Your task to perform on an android device: install app "TextNow: Call + Text Unlimited" Image 0: 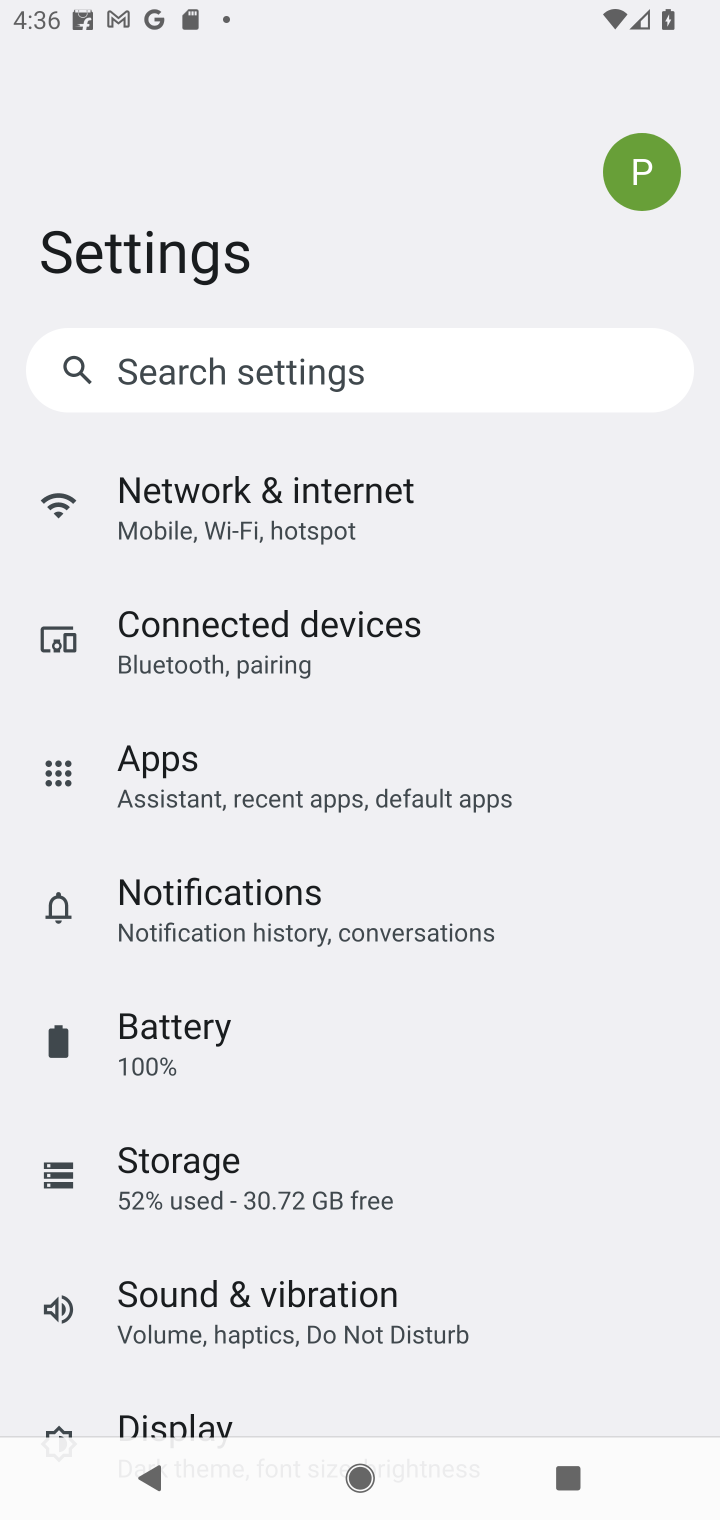
Step 0: press home button
Your task to perform on an android device: install app "TextNow: Call + Text Unlimited" Image 1: 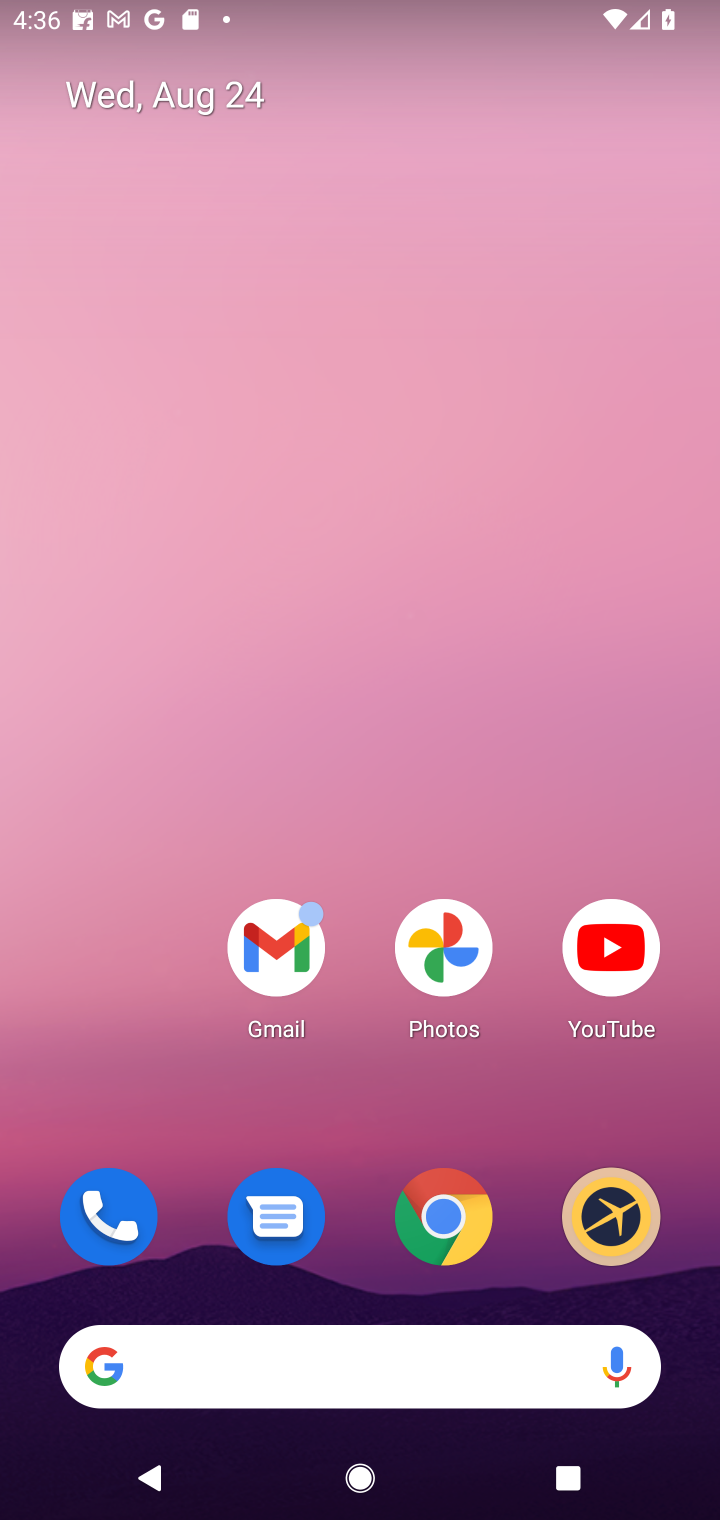
Step 1: drag from (349, 1111) to (349, 271)
Your task to perform on an android device: install app "TextNow: Call + Text Unlimited" Image 2: 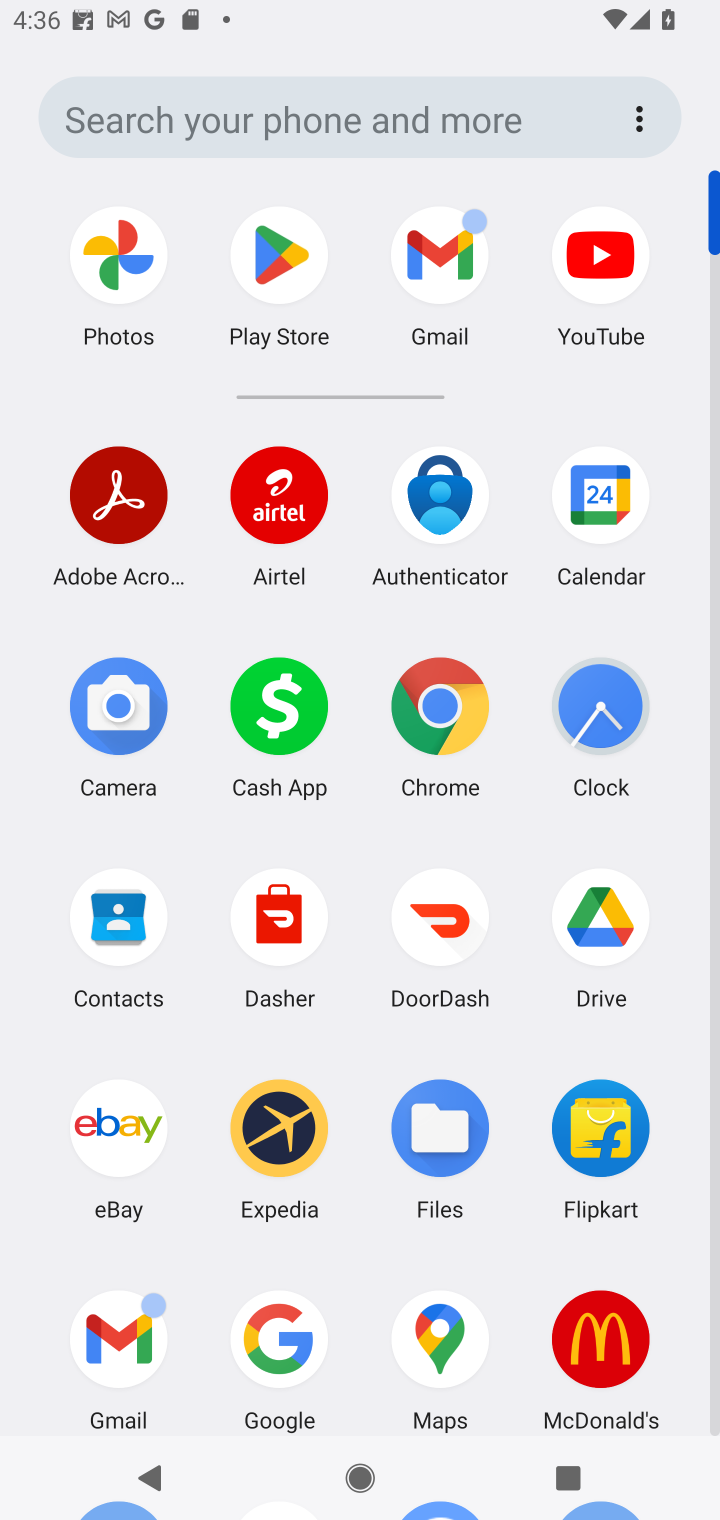
Step 2: click (284, 246)
Your task to perform on an android device: install app "TextNow: Call + Text Unlimited" Image 3: 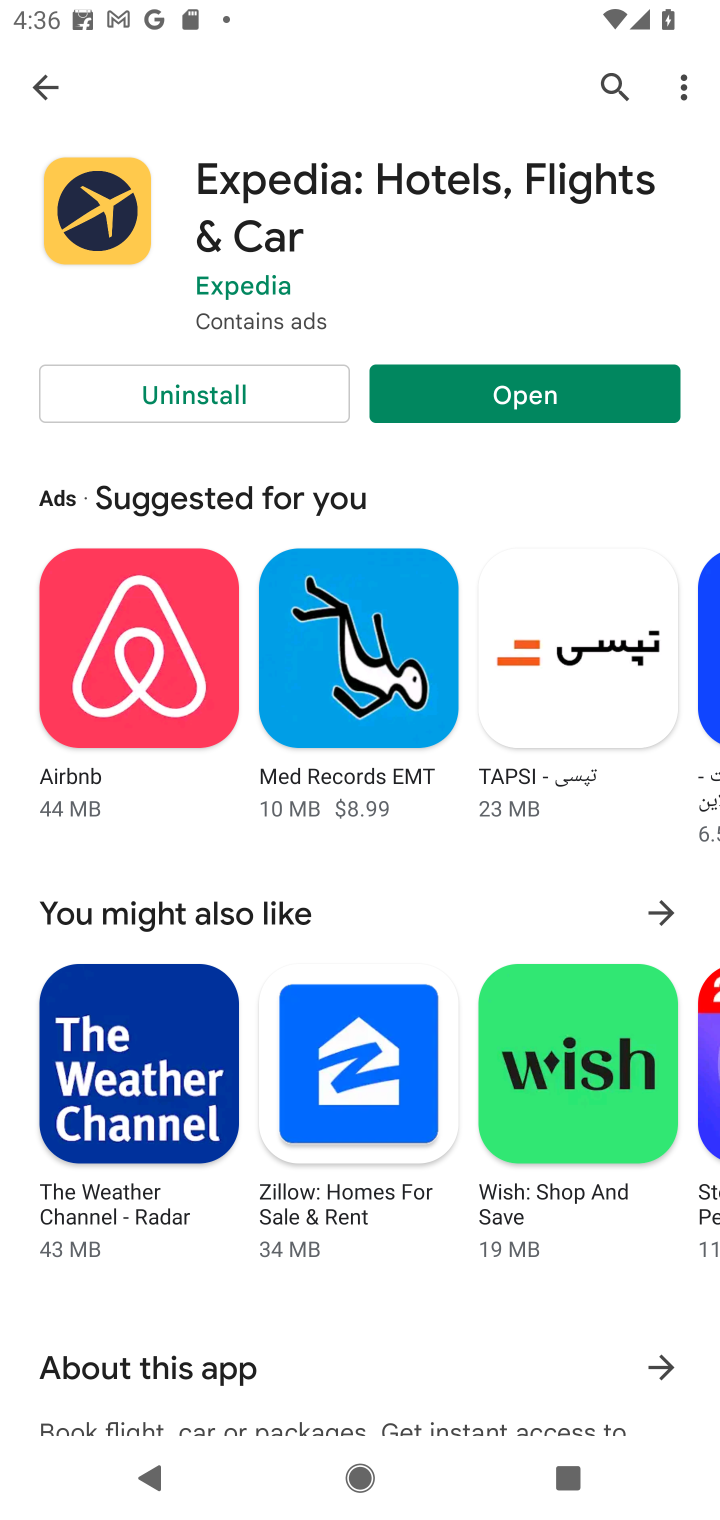
Step 3: click (595, 79)
Your task to perform on an android device: install app "TextNow: Call + Text Unlimited" Image 4: 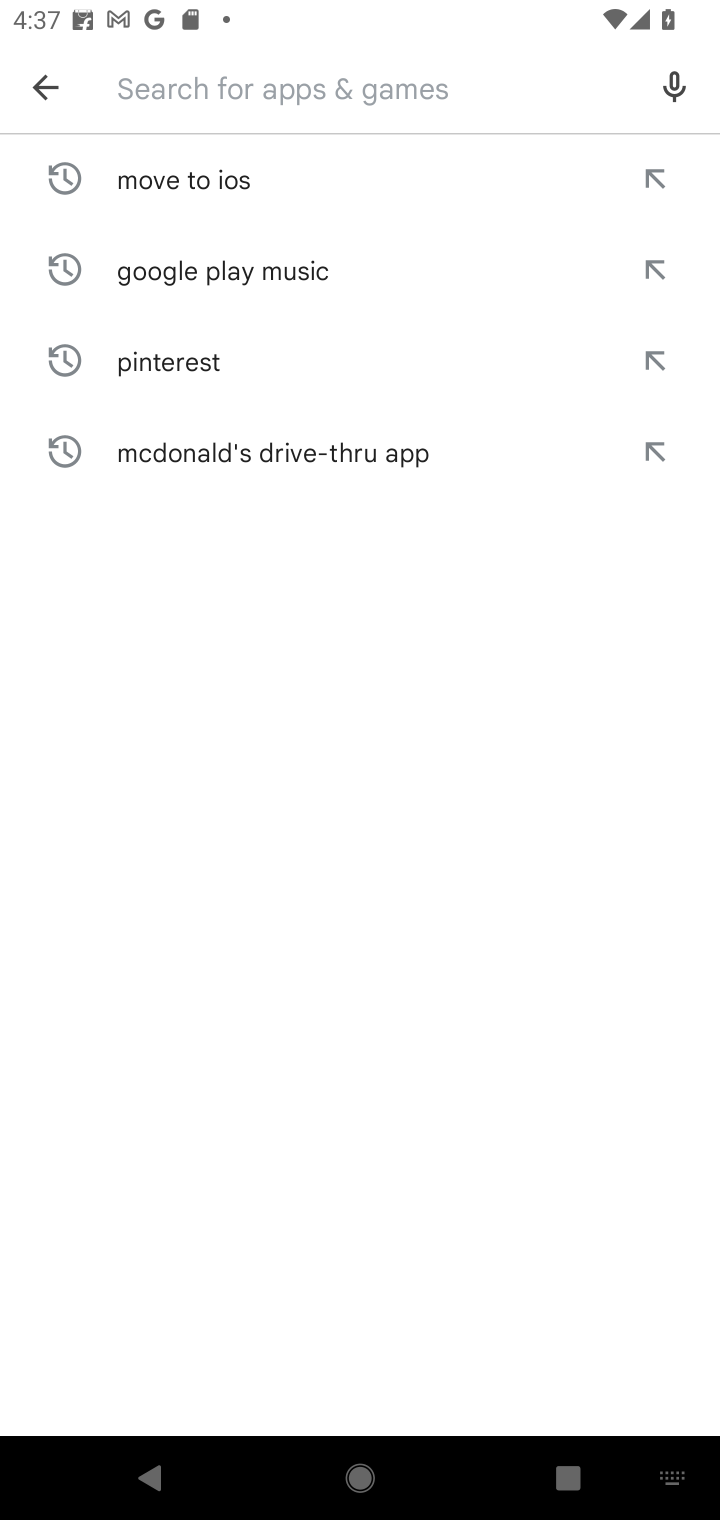
Step 4: type "TextNow: Call + Text Unlimited"
Your task to perform on an android device: install app "TextNow: Call + Text Unlimited" Image 5: 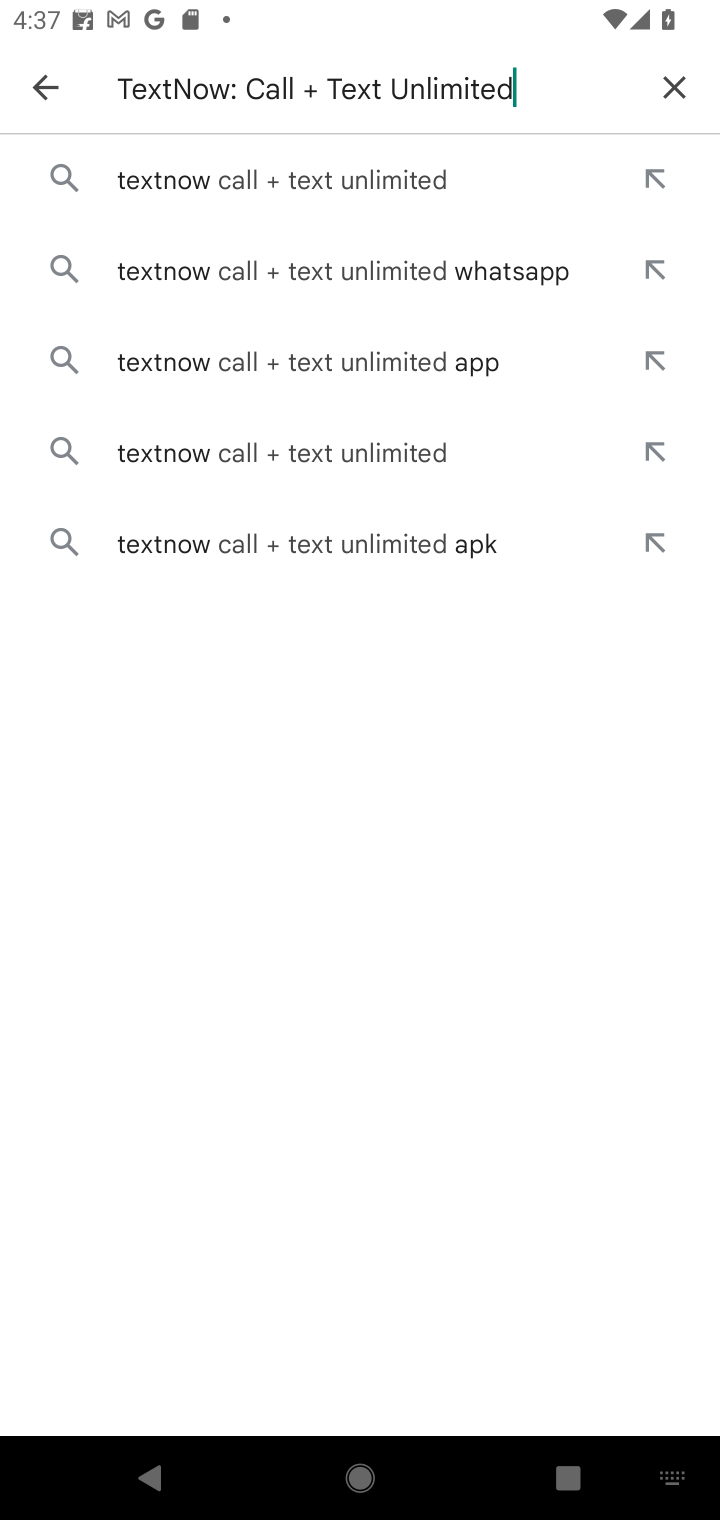
Step 5: click (315, 186)
Your task to perform on an android device: install app "TextNow: Call + Text Unlimited" Image 6: 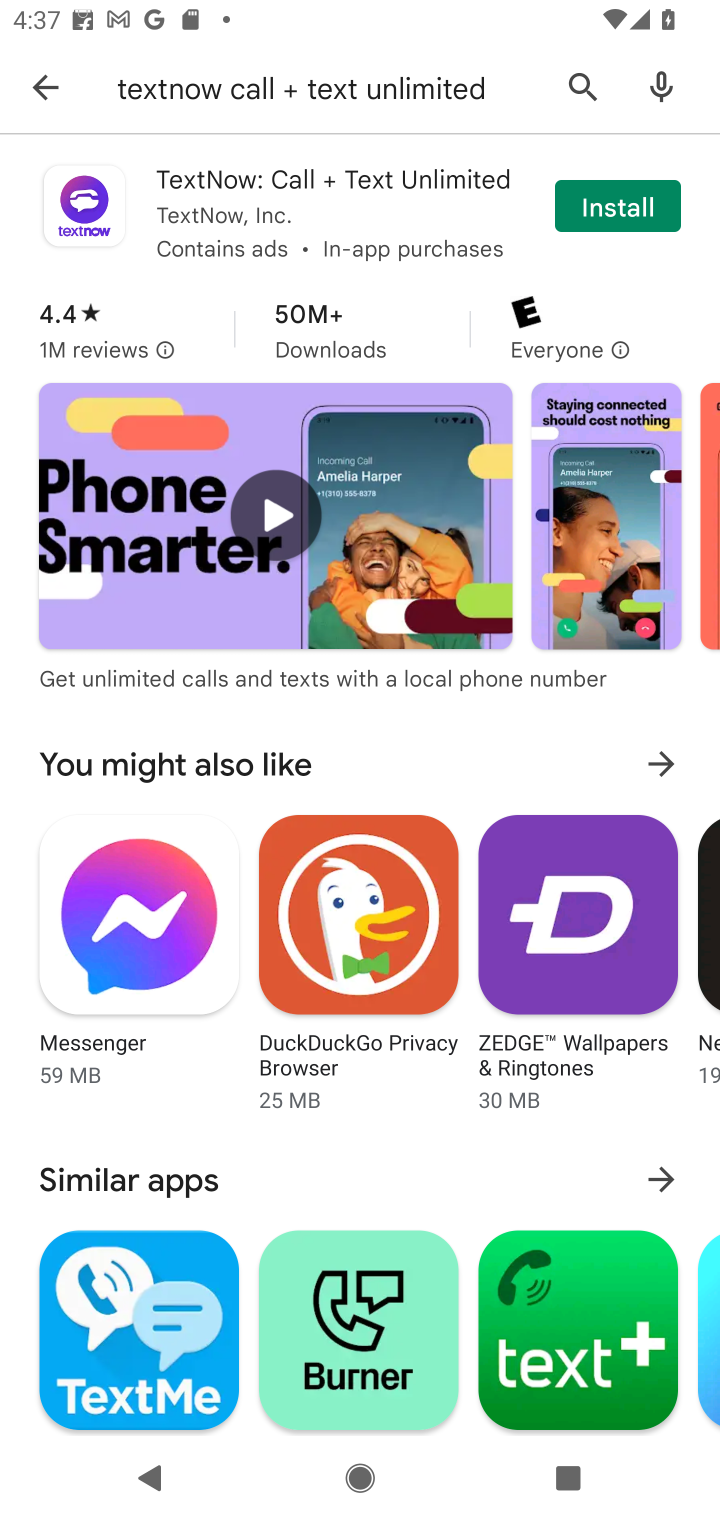
Step 6: click (584, 206)
Your task to perform on an android device: install app "TextNow: Call + Text Unlimited" Image 7: 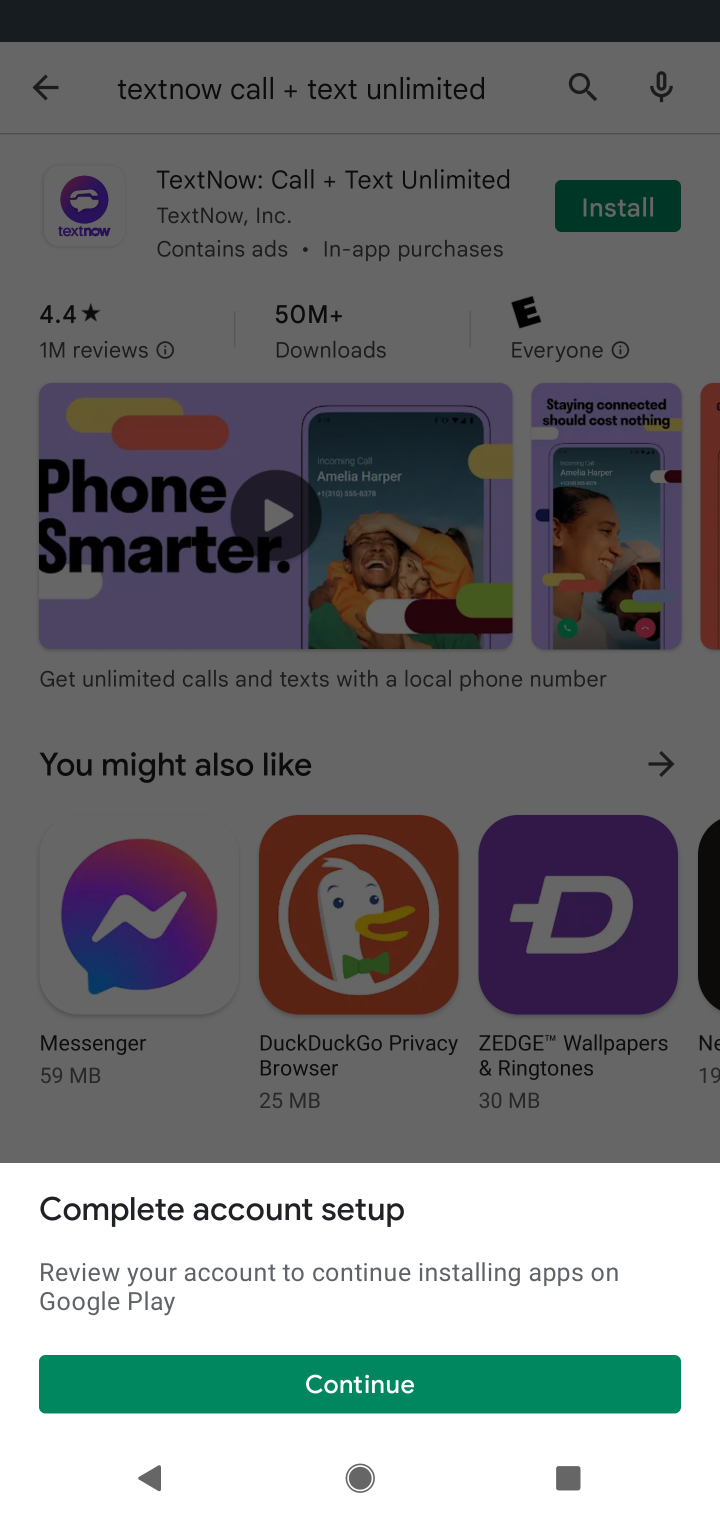
Step 7: click (486, 1394)
Your task to perform on an android device: install app "TextNow: Call + Text Unlimited" Image 8: 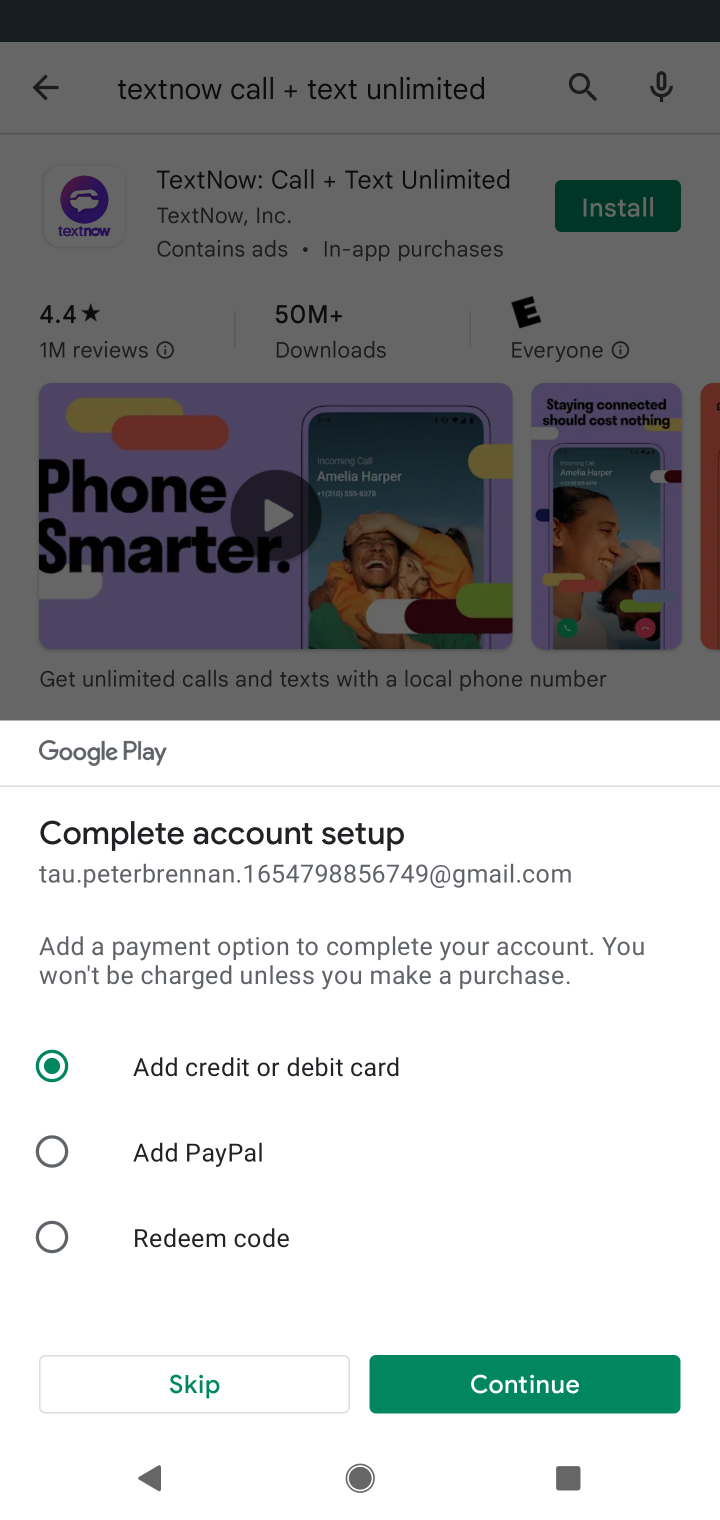
Step 8: click (215, 1365)
Your task to perform on an android device: install app "TextNow: Call + Text Unlimited" Image 9: 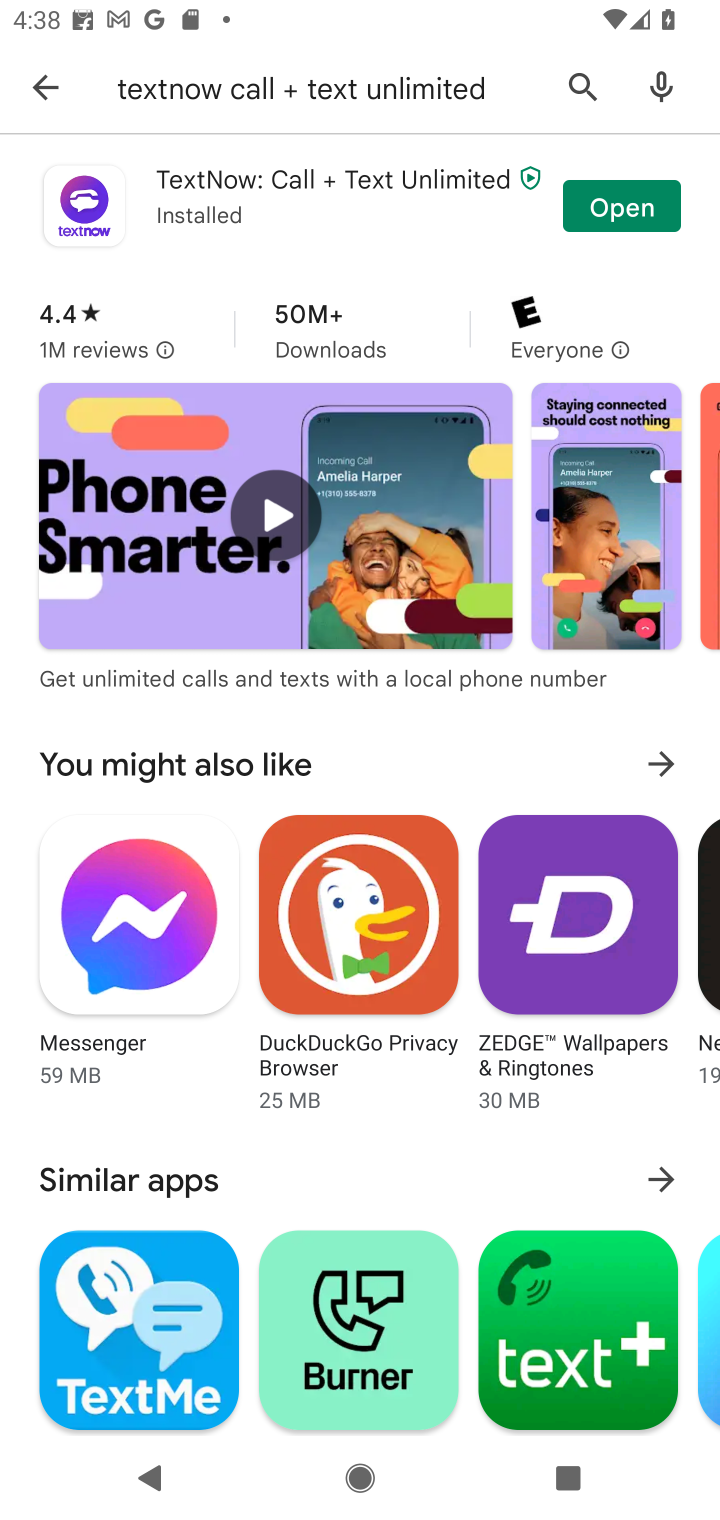
Step 9: click (385, 220)
Your task to perform on an android device: install app "TextNow: Call + Text Unlimited" Image 10: 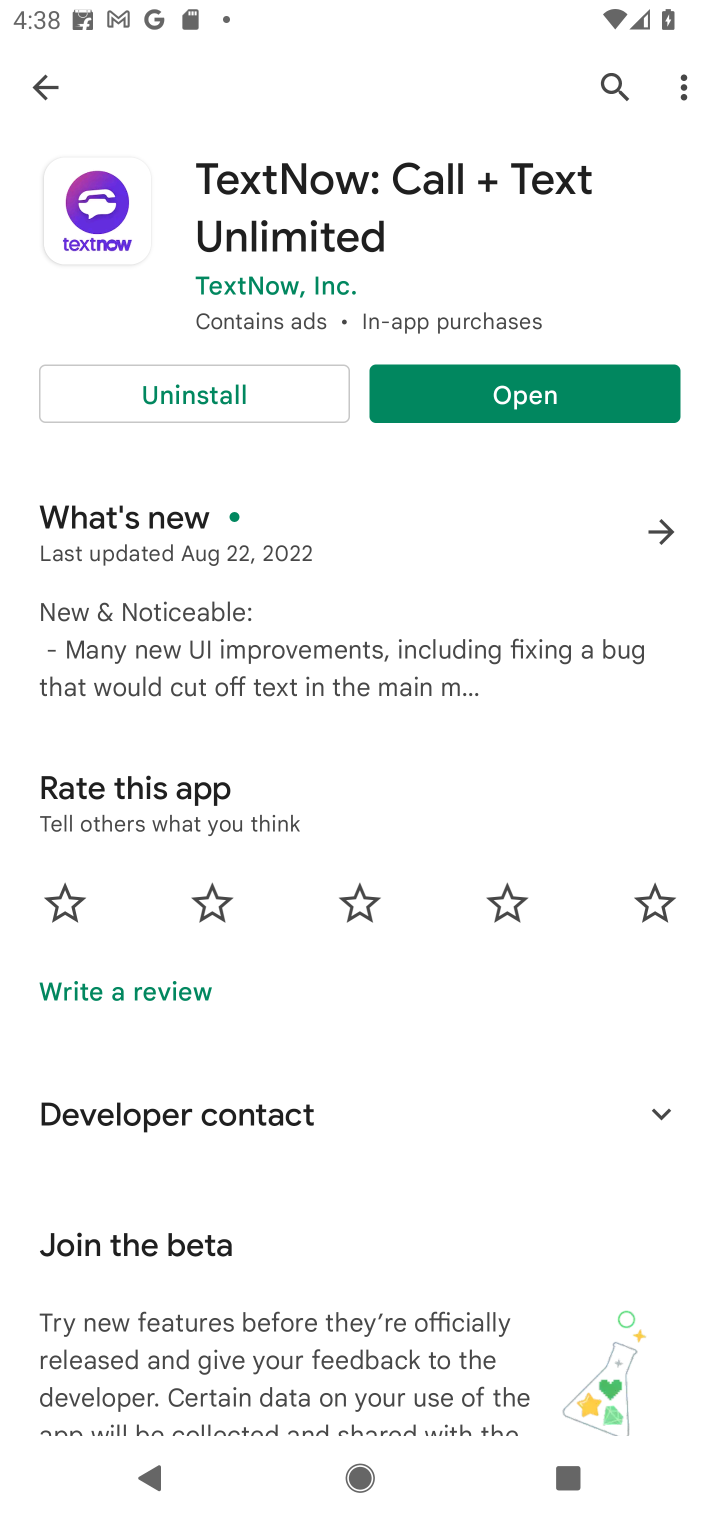
Step 10: task complete